Your task to perform on an android device: turn off javascript in the chrome app Image 0: 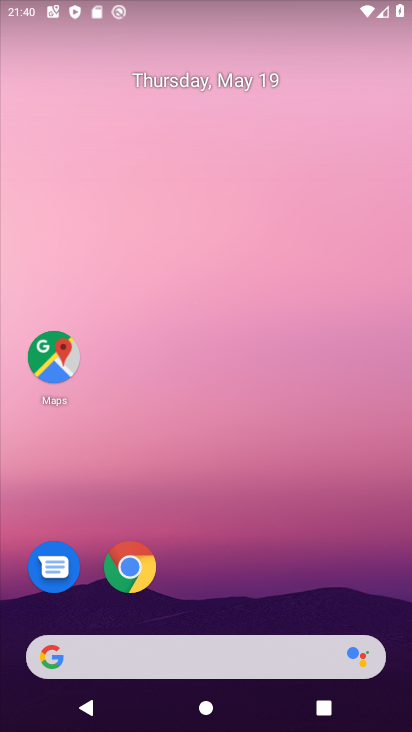
Step 0: click (138, 574)
Your task to perform on an android device: turn off javascript in the chrome app Image 1: 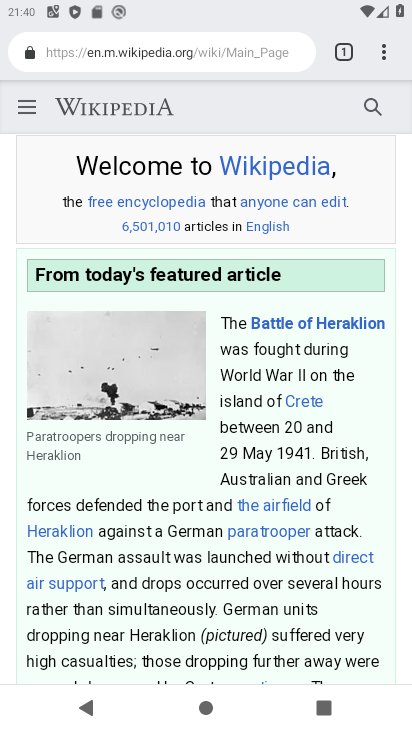
Step 1: click (386, 46)
Your task to perform on an android device: turn off javascript in the chrome app Image 2: 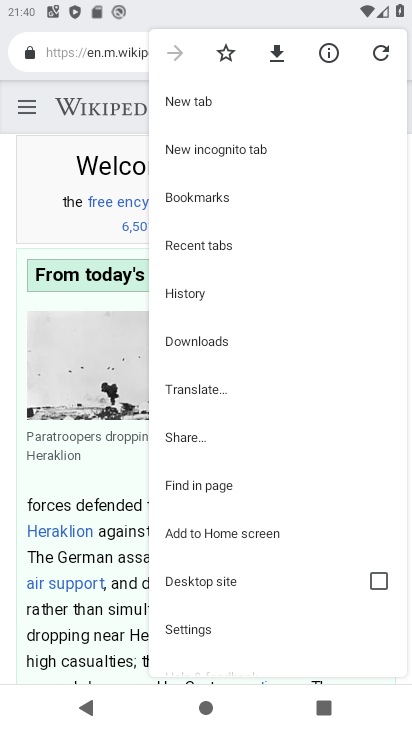
Step 2: click (228, 624)
Your task to perform on an android device: turn off javascript in the chrome app Image 3: 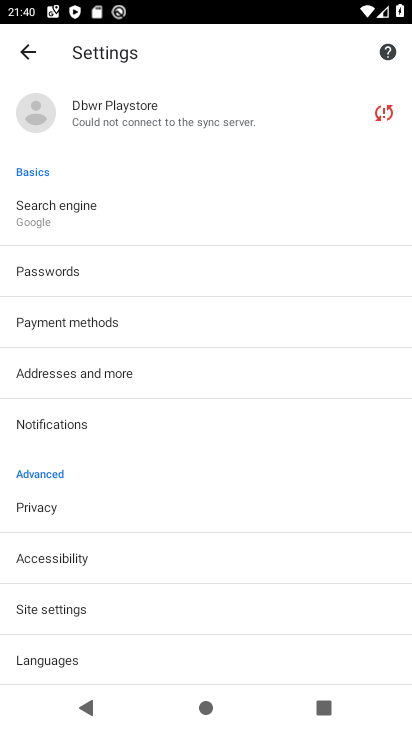
Step 3: click (101, 612)
Your task to perform on an android device: turn off javascript in the chrome app Image 4: 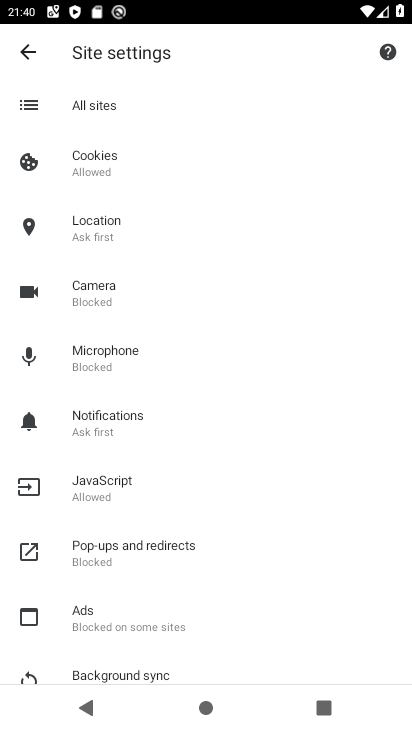
Step 4: click (111, 492)
Your task to perform on an android device: turn off javascript in the chrome app Image 5: 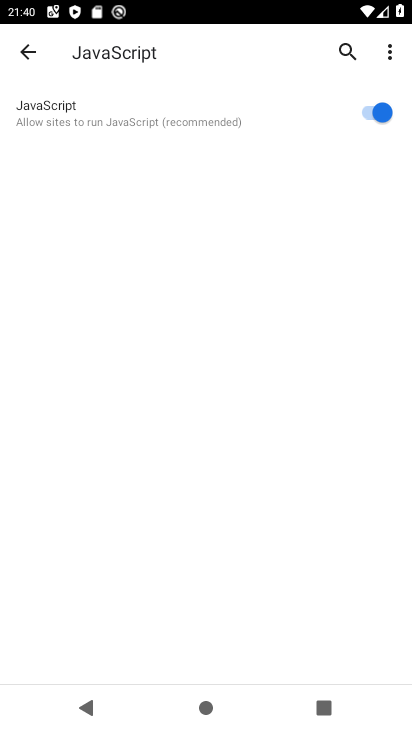
Step 5: click (358, 108)
Your task to perform on an android device: turn off javascript in the chrome app Image 6: 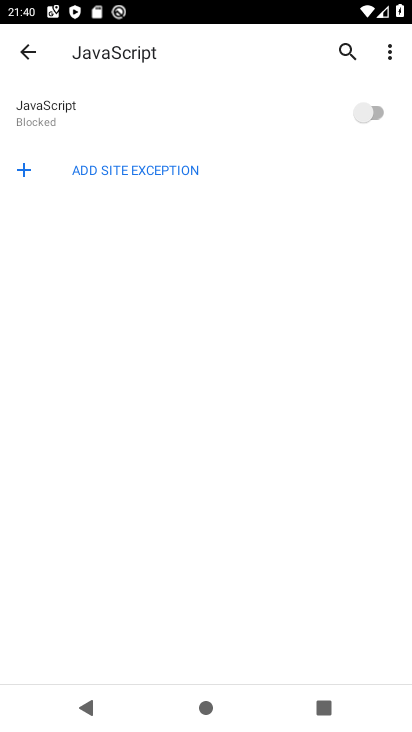
Step 6: task complete